Your task to perform on an android device: Open the Play Movies app and select the watchlist tab. Image 0: 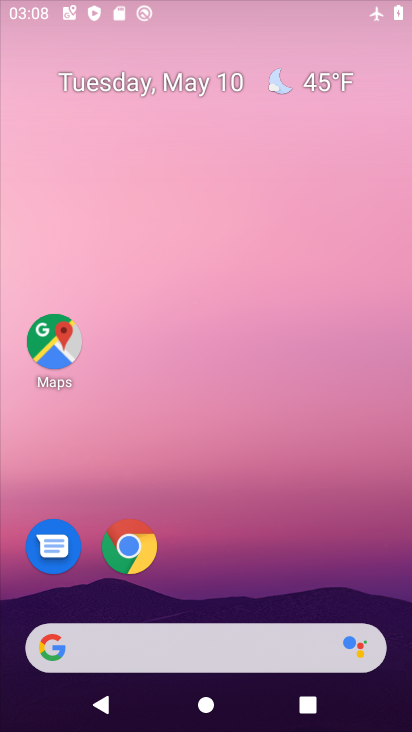
Step 0: drag from (250, 544) to (256, 17)
Your task to perform on an android device: Open the Play Movies app and select the watchlist tab. Image 1: 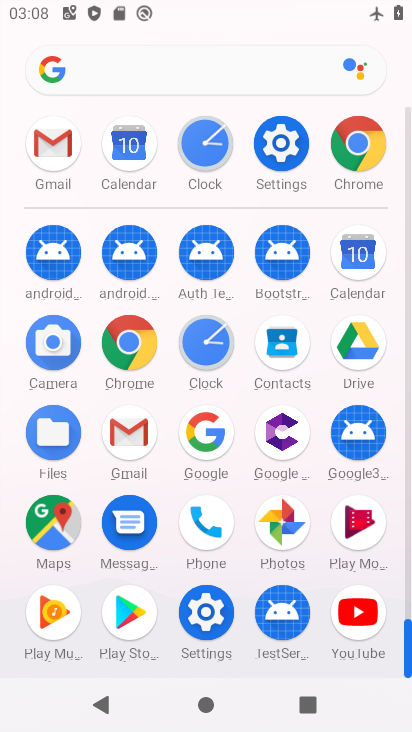
Step 1: drag from (14, 625) to (6, 312)
Your task to perform on an android device: Open the Play Movies app and select the watchlist tab. Image 2: 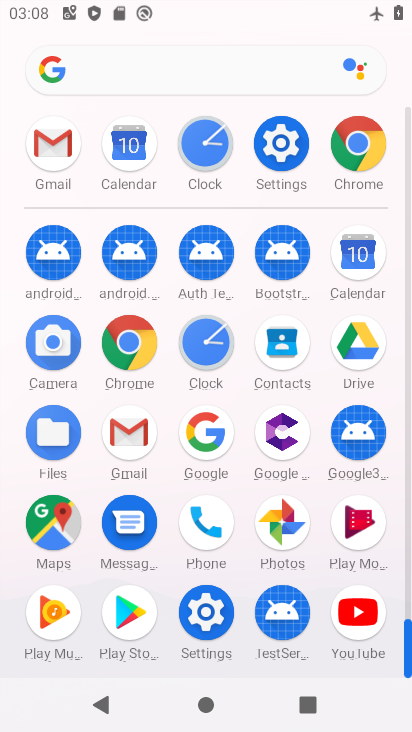
Step 2: drag from (4, 504) to (0, 236)
Your task to perform on an android device: Open the Play Movies app and select the watchlist tab. Image 3: 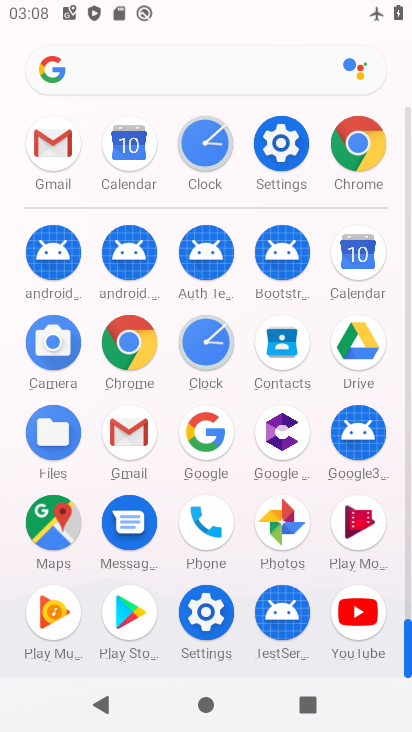
Step 3: click (348, 523)
Your task to perform on an android device: Open the Play Movies app and select the watchlist tab. Image 4: 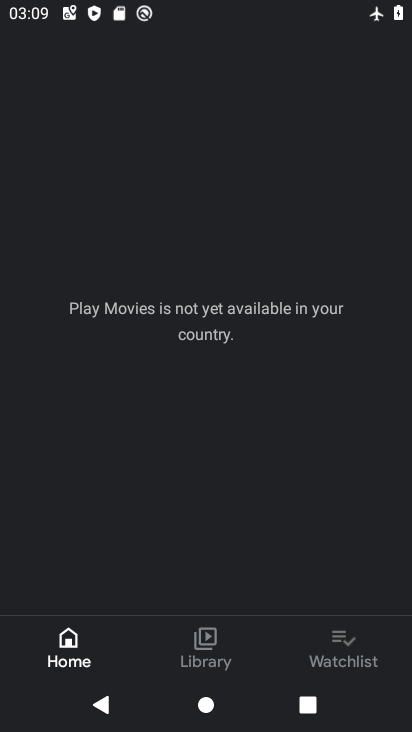
Step 4: click (330, 645)
Your task to perform on an android device: Open the Play Movies app and select the watchlist tab. Image 5: 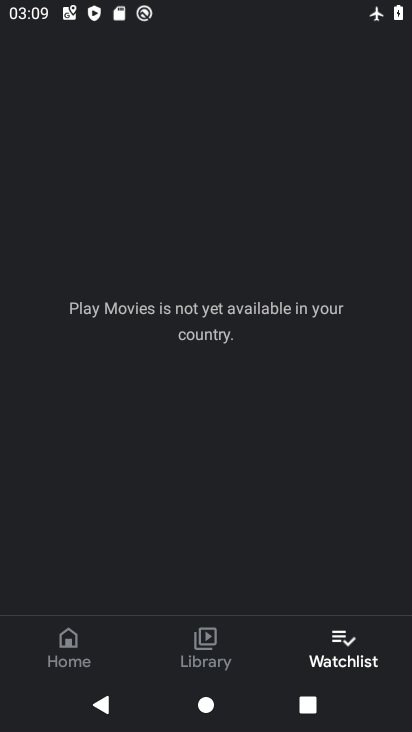
Step 5: task complete